Your task to perform on an android device: Search for seafood restaurants on Google Maps Image 0: 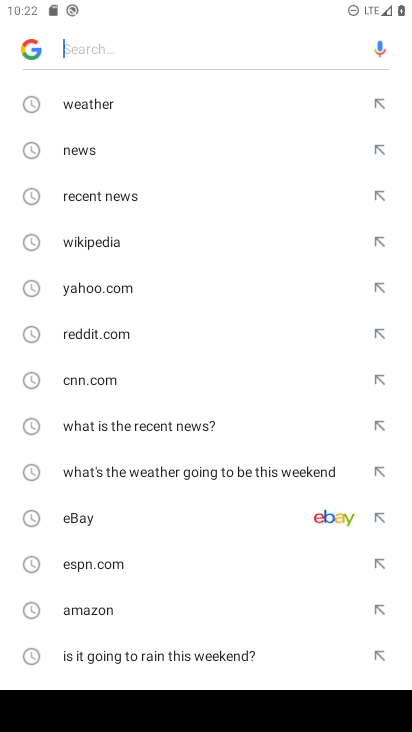
Step 0: press home button
Your task to perform on an android device: Search for seafood restaurants on Google Maps Image 1: 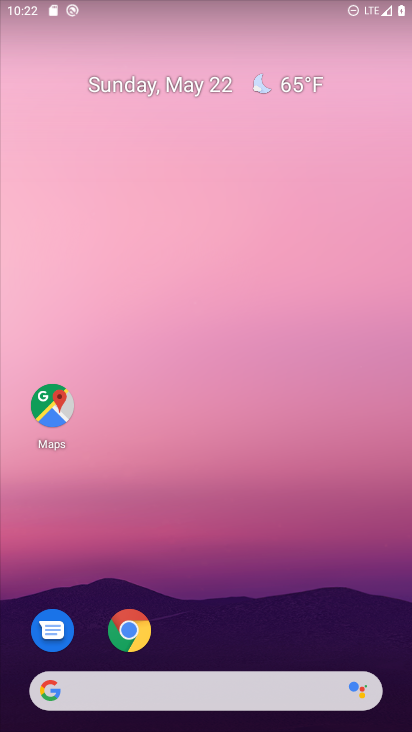
Step 1: click (60, 417)
Your task to perform on an android device: Search for seafood restaurants on Google Maps Image 2: 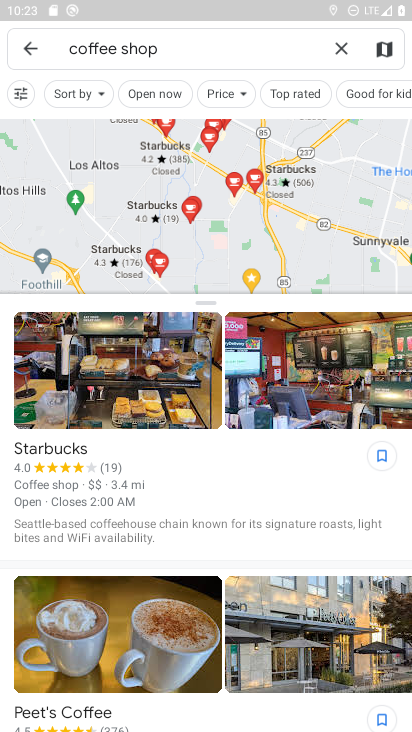
Step 2: click (340, 48)
Your task to perform on an android device: Search for seafood restaurants on Google Maps Image 3: 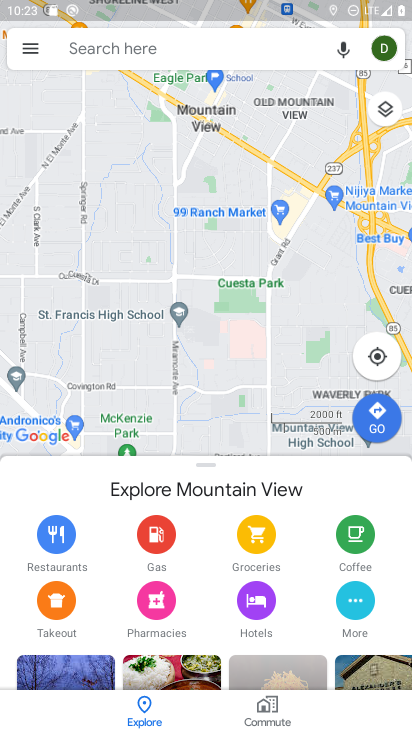
Step 3: click (219, 45)
Your task to perform on an android device: Search for seafood restaurants on Google Maps Image 4: 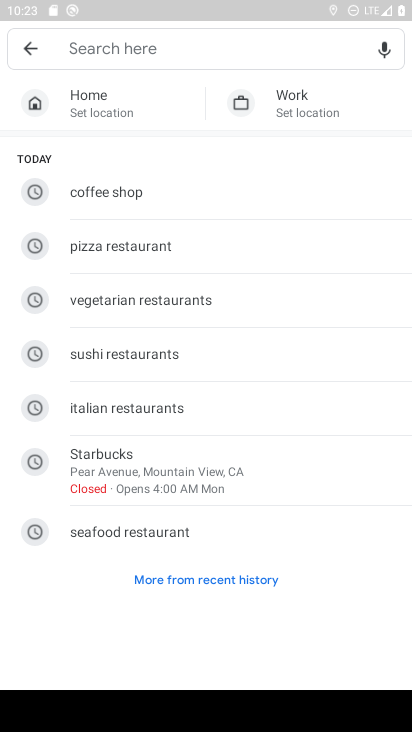
Step 4: click (127, 532)
Your task to perform on an android device: Search for seafood restaurants on Google Maps Image 5: 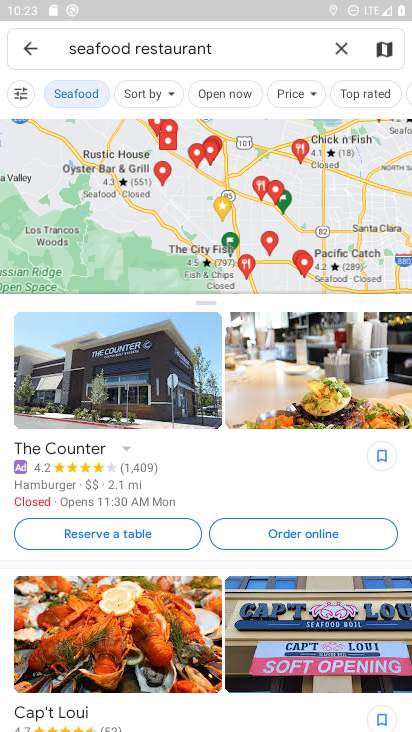
Step 5: task complete